Your task to perform on an android device: change keyboard looks Image 0: 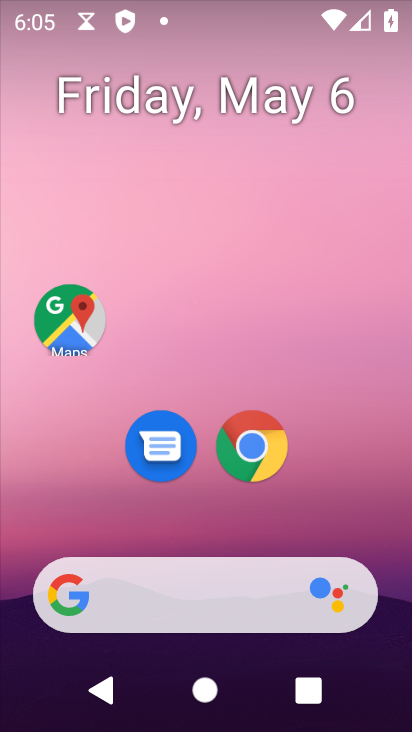
Step 0: drag from (300, 515) to (333, 171)
Your task to perform on an android device: change keyboard looks Image 1: 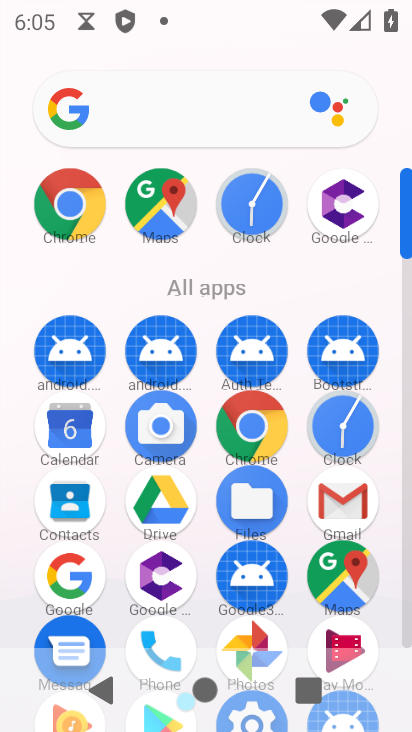
Step 1: drag from (283, 493) to (378, 276)
Your task to perform on an android device: change keyboard looks Image 2: 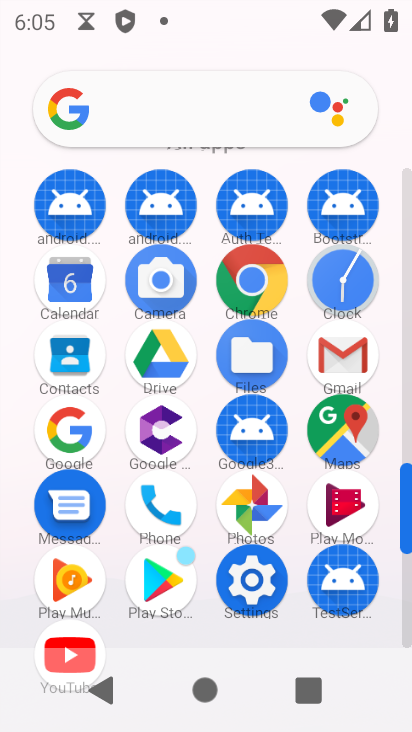
Step 2: drag from (278, 595) to (315, 235)
Your task to perform on an android device: change keyboard looks Image 3: 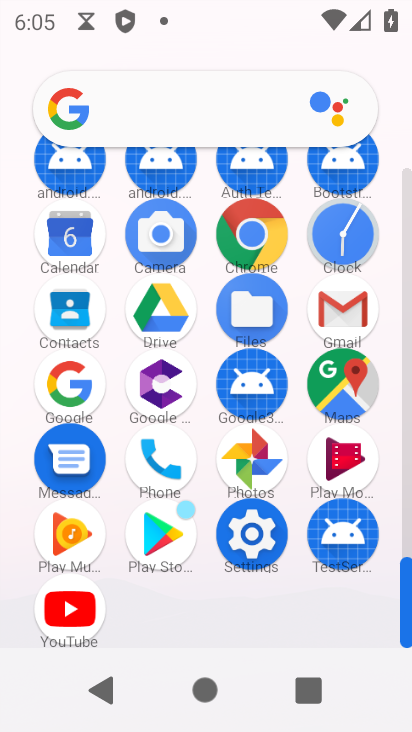
Step 3: click (255, 539)
Your task to perform on an android device: change keyboard looks Image 4: 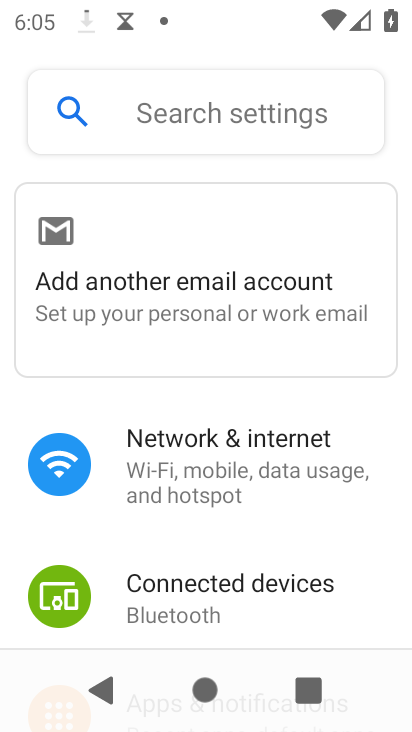
Step 4: drag from (245, 588) to (223, 208)
Your task to perform on an android device: change keyboard looks Image 5: 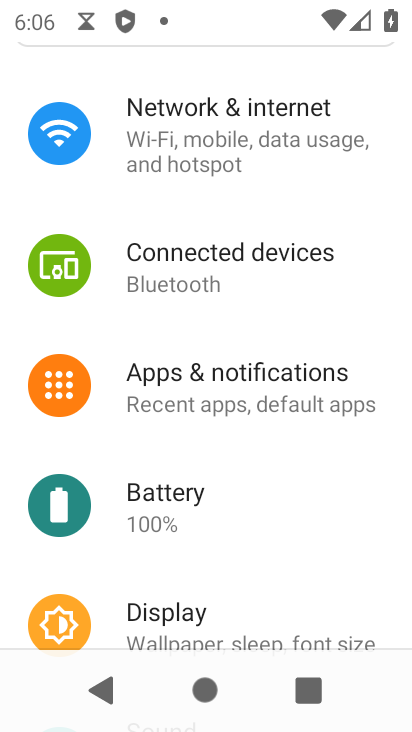
Step 5: drag from (232, 503) to (252, 149)
Your task to perform on an android device: change keyboard looks Image 6: 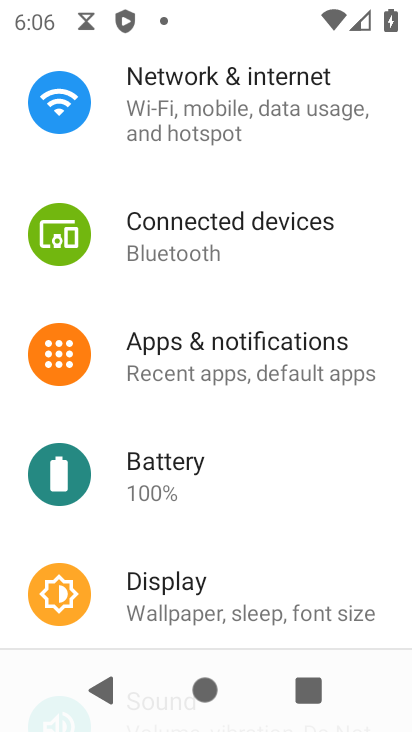
Step 6: drag from (229, 585) to (208, 256)
Your task to perform on an android device: change keyboard looks Image 7: 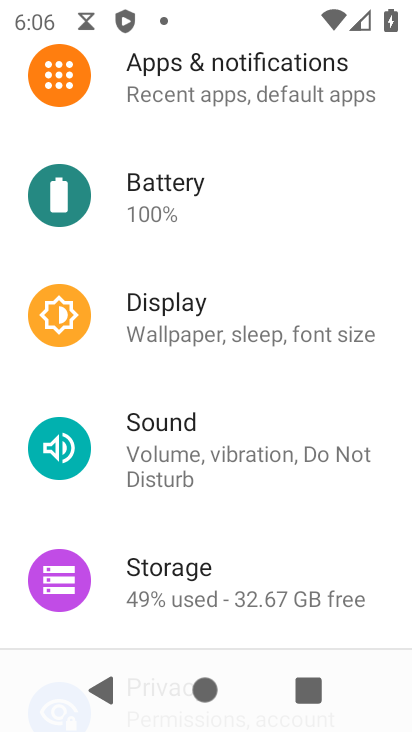
Step 7: drag from (215, 549) to (232, 306)
Your task to perform on an android device: change keyboard looks Image 8: 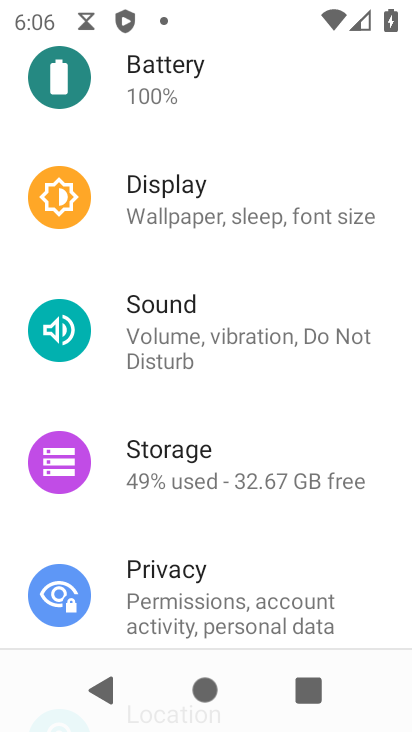
Step 8: drag from (215, 546) to (237, 314)
Your task to perform on an android device: change keyboard looks Image 9: 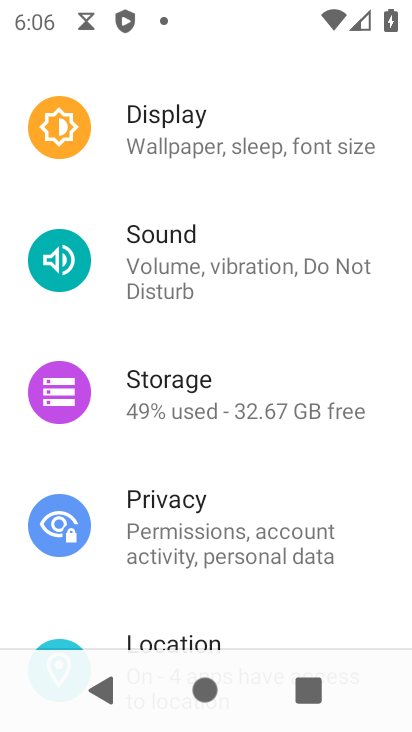
Step 9: drag from (222, 575) to (219, 283)
Your task to perform on an android device: change keyboard looks Image 10: 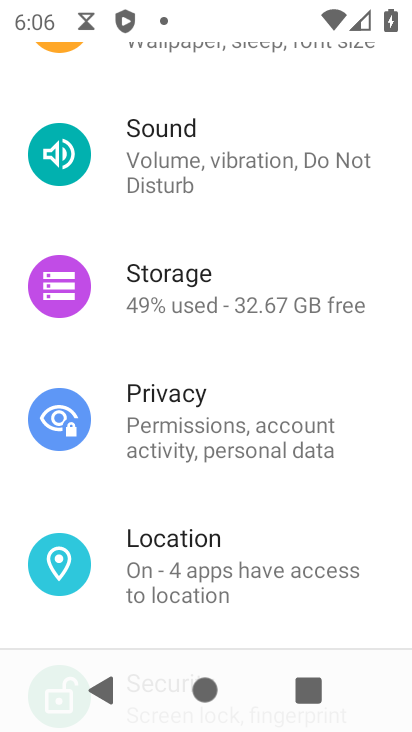
Step 10: drag from (223, 539) to (235, 230)
Your task to perform on an android device: change keyboard looks Image 11: 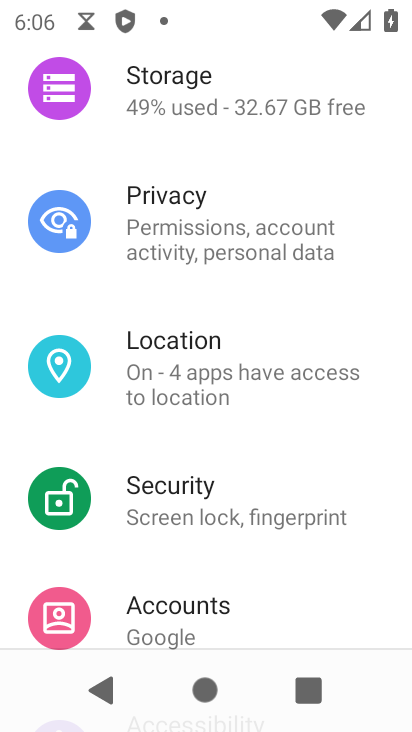
Step 11: drag from (243, 577) to (189, 219)
Your task to perform on an android device: change keyboard looks Image 12: 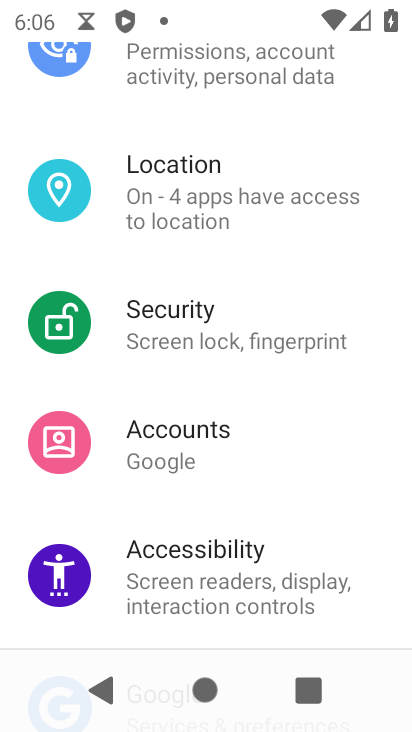
Step 12: drag from (184, 574) to (186, 222)
Your task to perform on an android device: change keyboard looks Image 13: 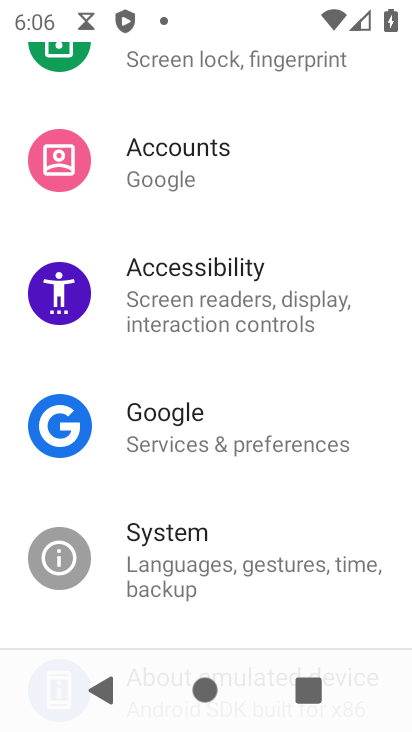
Step 13: click (176, 577)
Your task to perform on an android device: change keyboard looks Image 14: 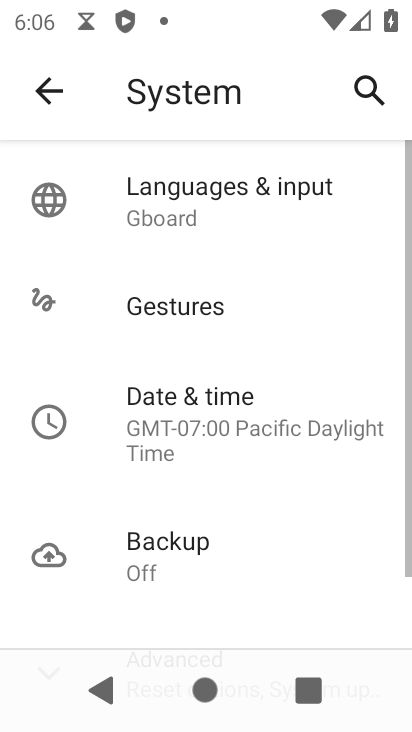
Step 14: click (170, 187)
Your task to perform on an android device: change keyboard looks Image 15: 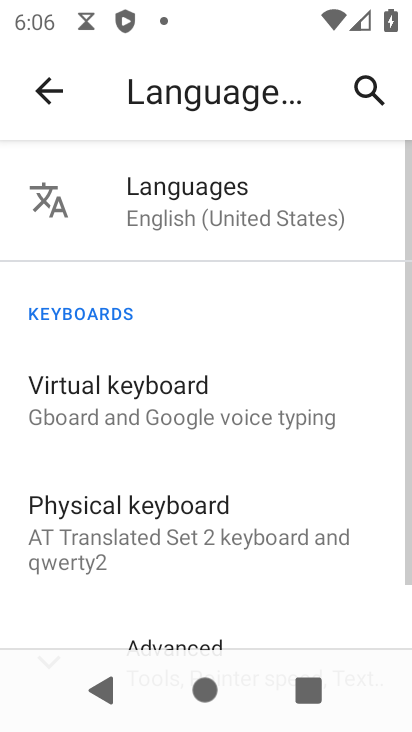
Step 15: click (148, 407)
Your task to perform on an android device: change keyboard looks Image 16: 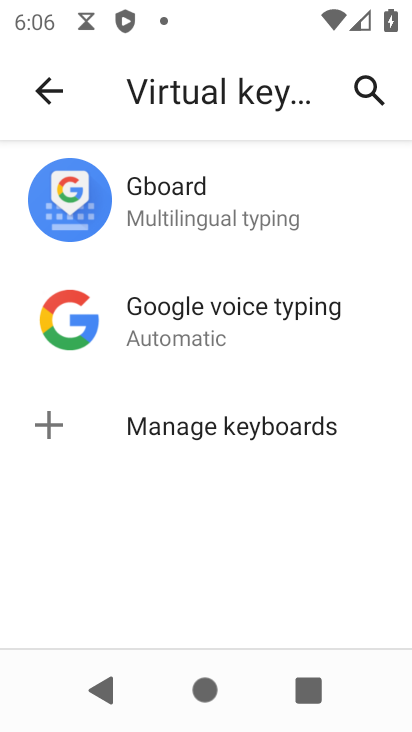
Step 16: click (142, 233)
Your task to perform on an android device: change keyboard looks Image 17: 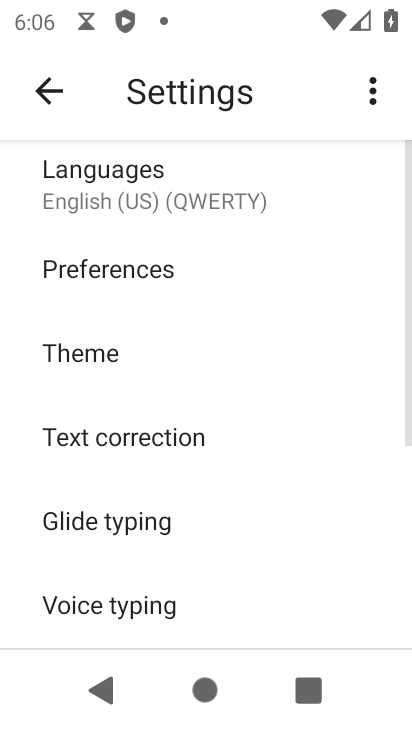
Step 17: click (105, 381)
Your task to perform on an android device: change keyboard looks Image 18: 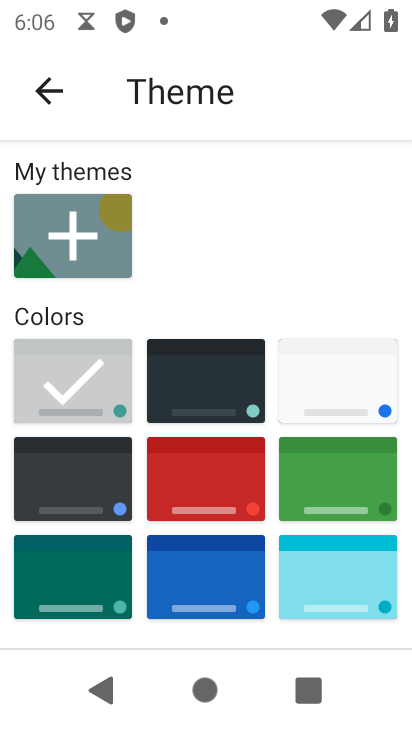
Step 18: click (152, 379)
Your task to perform on an android device: change keyboard looks Image 19: 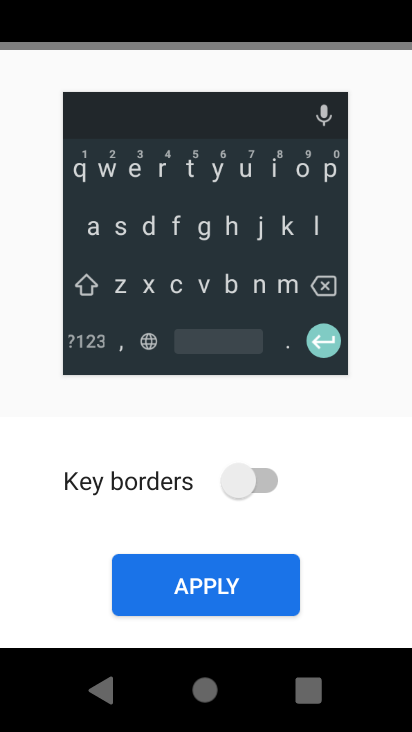
Step 19: click (187, 600)
Your task to perform on an android device: change keyboard looks Image 20: 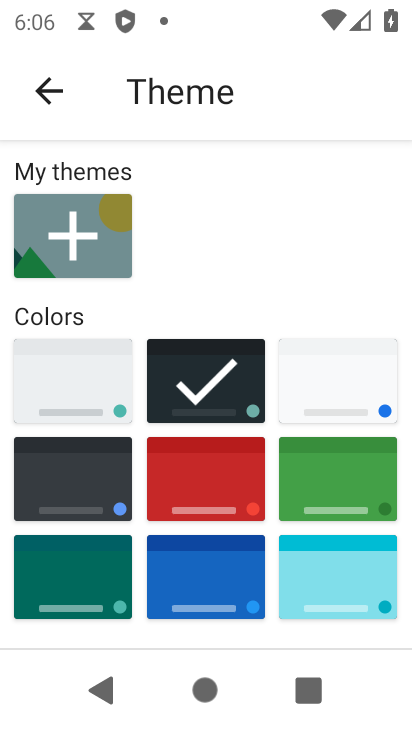
Step 20: task complete